Your task to perform on an android device: allow notifications from all sites in the chrome app Image 0: 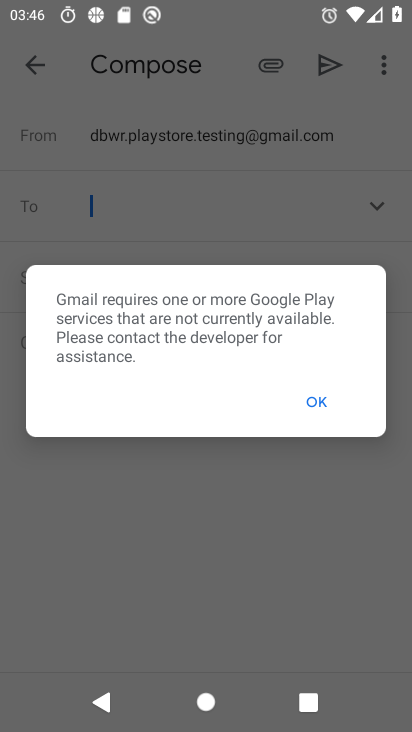
Step 0: press back button
Your task to perform on an android device: allow notifications from all sites in the chrome app Image 1: 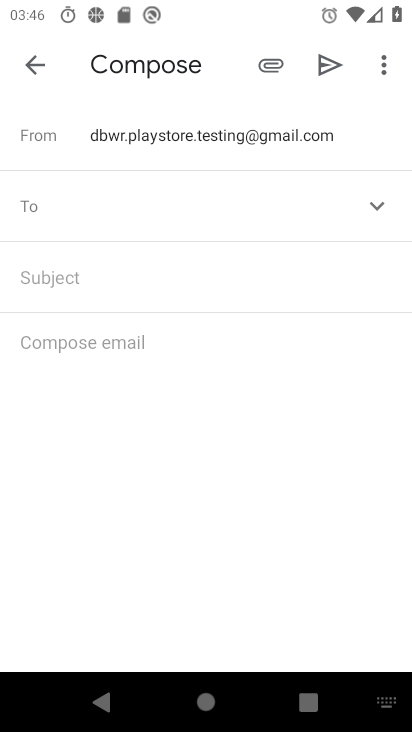
Step 1: press home button
Your task to perform on an android device: allow notifications from all sites in the chrome app Image 2: 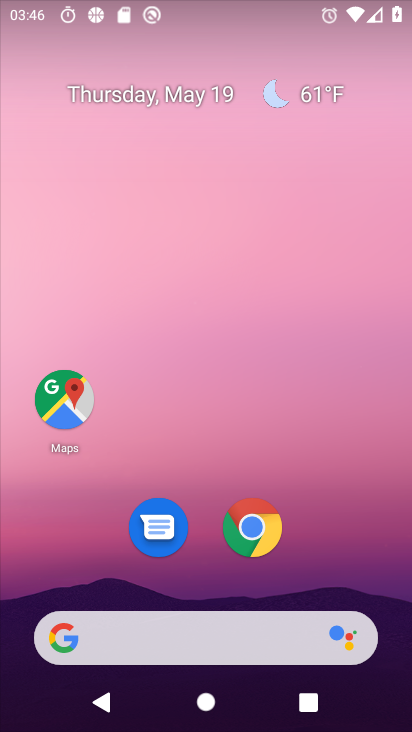
Step 2: drag from (206, 599) to (273, 48)
Your task to perform on an android device: allow notifications from all sites in the chrome app Image 3: 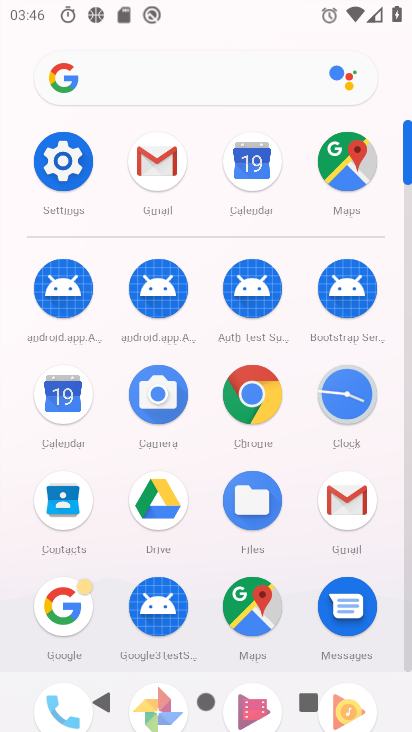
Step 3: click (256, 390)
Your task to perform on an android device: allow notifications from all sites in the chrome app Image 4: 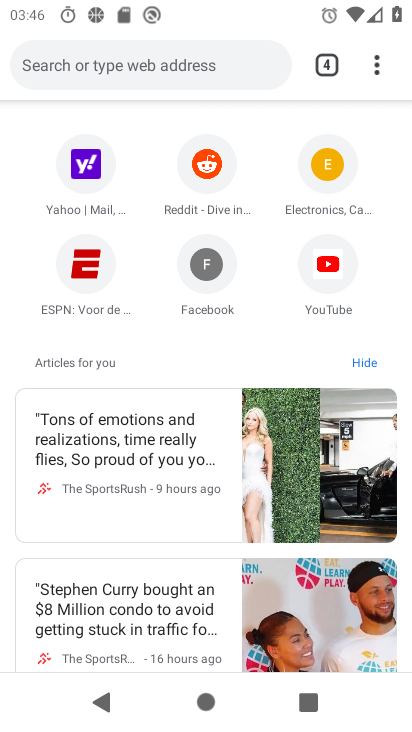
Step 4: drag from (376, 73) to (136, 546)
Your task to perform on an android device: allow notifications from all sites in the chrome app Image 5: 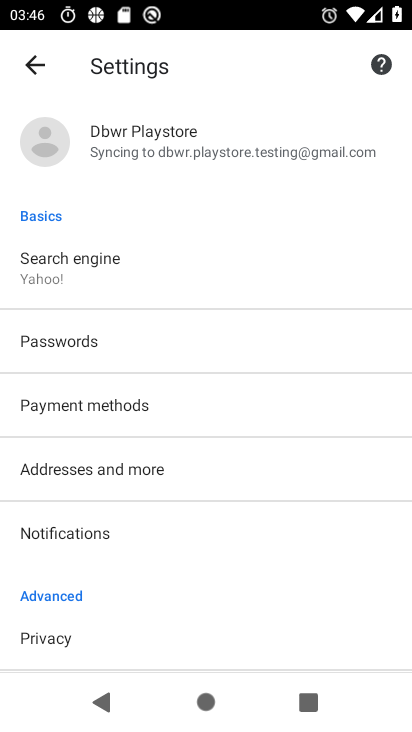
Step 5: drag from (142, 564) to (235, 182)
Your task to perform on an android device: allow notifications from all sites in the chrome app Image 6: 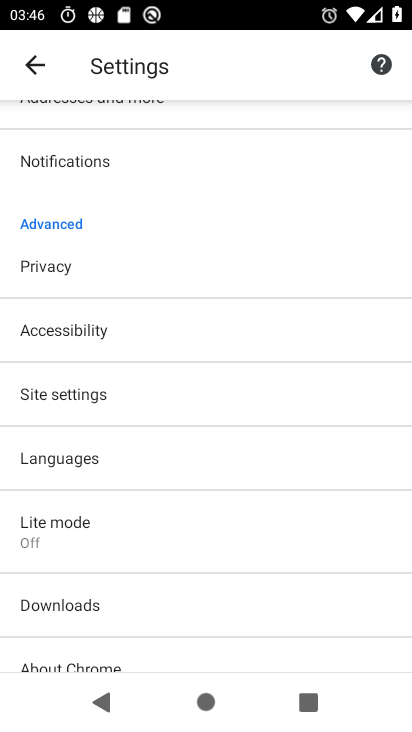
Step 6: click (102, 386)
Your task to perform on an android device: allow notifications from all sites in the chrome app Image 7: 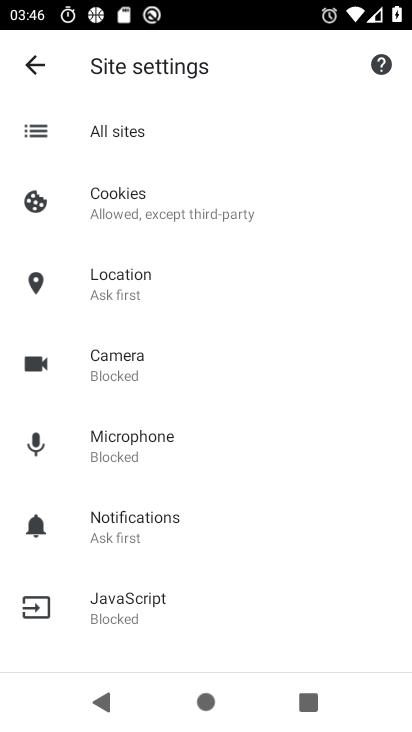
Step 7: click (155, 529)
Your task to perform on an android device: allow notifications from all sites in the chrome app Image 8: 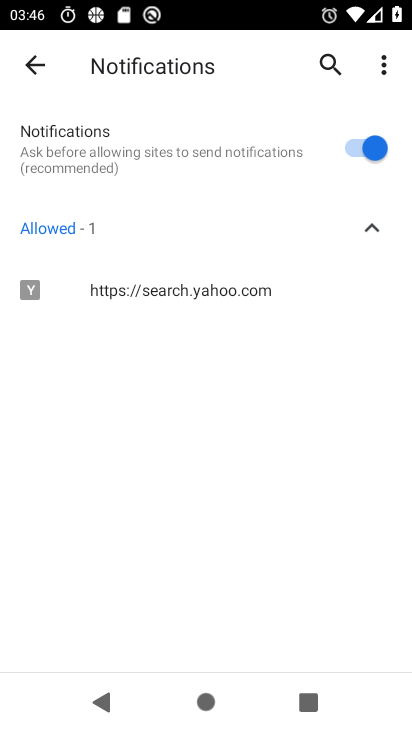
Step 8: task complete